Your task to perform on an android device: Go to Google maps Image 0: 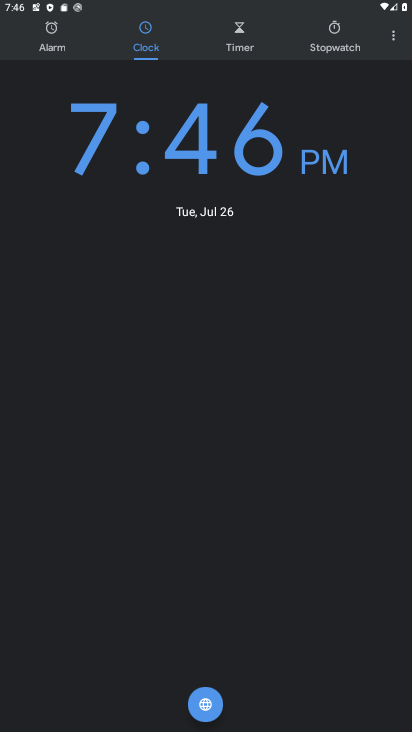
Step 0: press home button
Your task to perform on an android device: Go to Google maps Image 1: 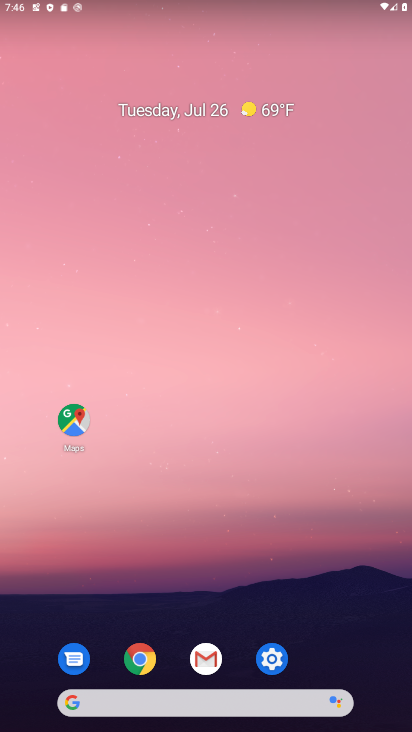
Step 1: click (65, 427)
Your task to perform on an android device: Go to Google maps Image 2: 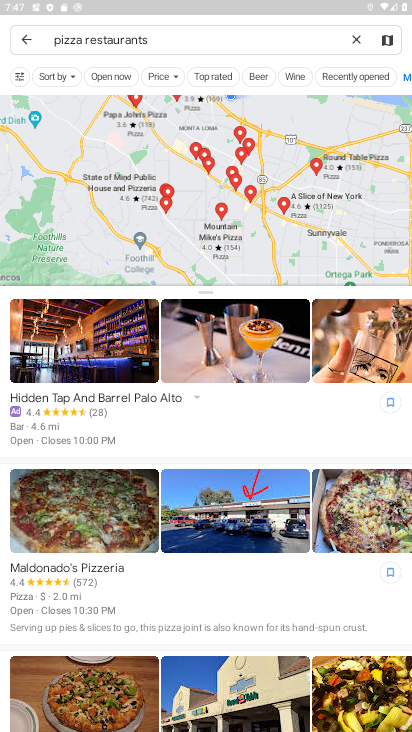
Step 2: click (19, 44)
Your task to perform on an android device: Go to Google maps Image 3: 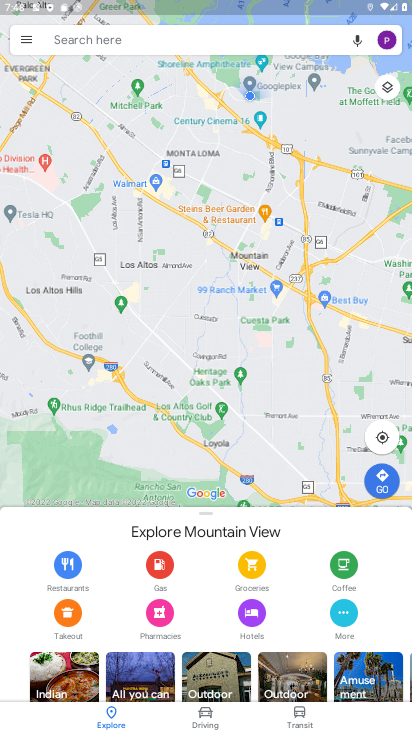
Step 3: task complete